Your task to perform on an android device: check battery use Image 0: 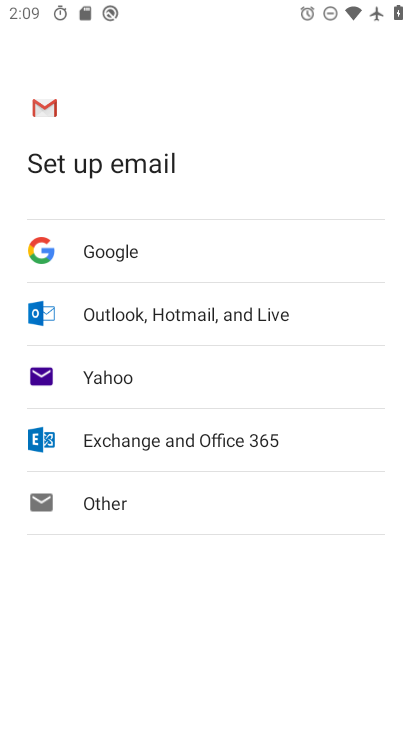
Step 0: press home button
Your task to perform on an android device: check battery use Image 1: 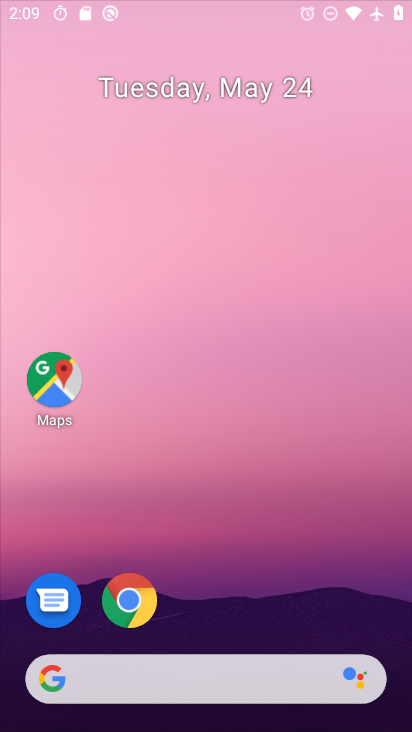
Step 1: drag from (257, 592) to (218, 150)
Your task to perform on an android device: check battery use Image 2: 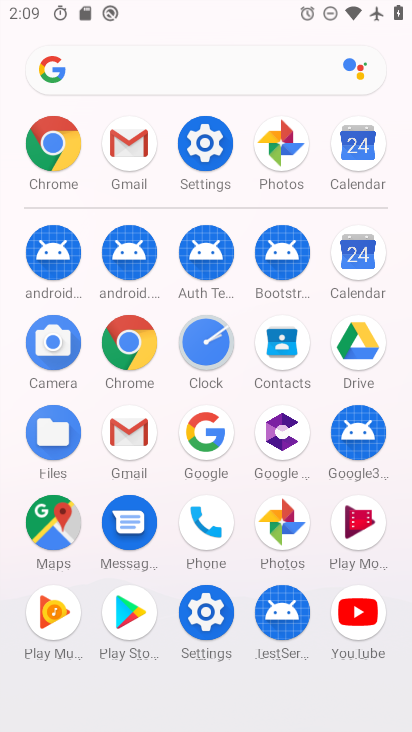
Step 2: click (207, 140)
Your task to perform on an android device: check battery use Image 3: 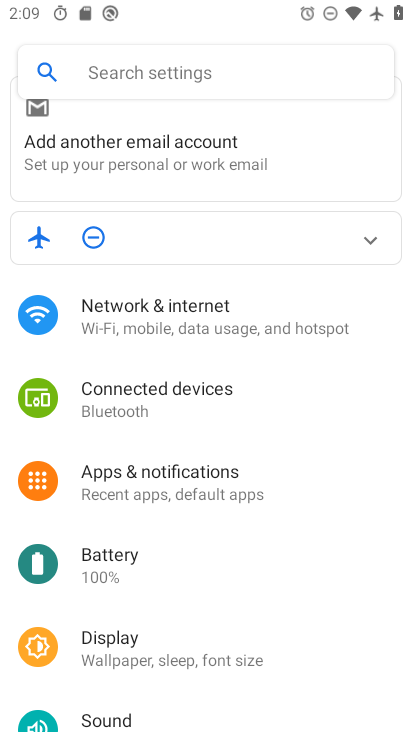
Step 3: drag from (185, 582) to (250, 225)
Your task to perform on an android device: check battery use Image 4: 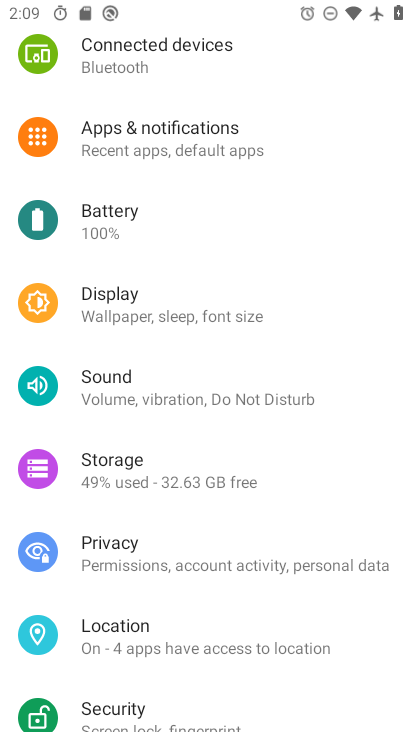
Step 4: drag from (176, 596) to (213, 570)
Your task to perform on an android device: check battery use Image 5: 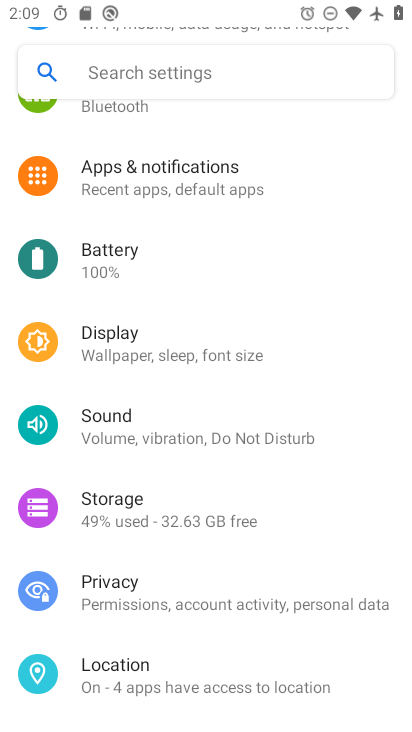
Step 5: click (119, 279)
Your task to perform on an android device: check battery use Image 6: 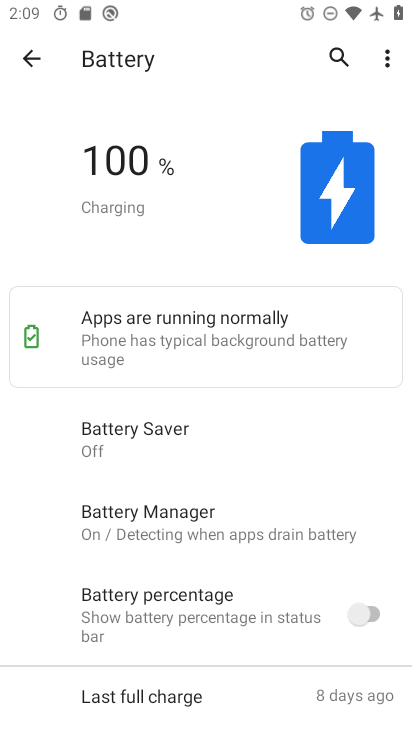
Step 6: click (389, 45)
Your task to perform on an android device: check battery use Image 7: 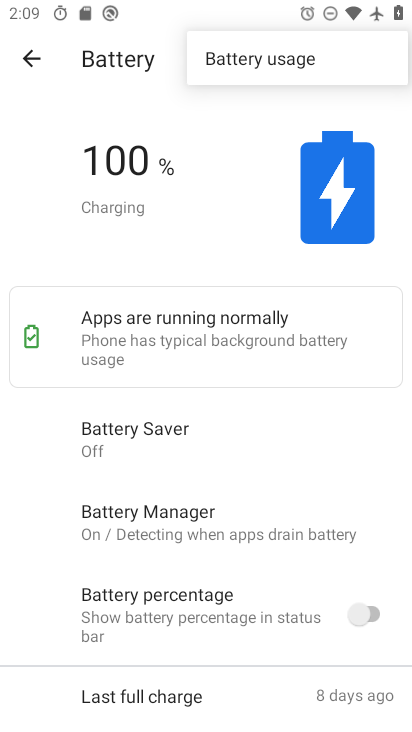
Step 7: click (291, 49)
Your task to perform on an android device: check battery use Image 8: 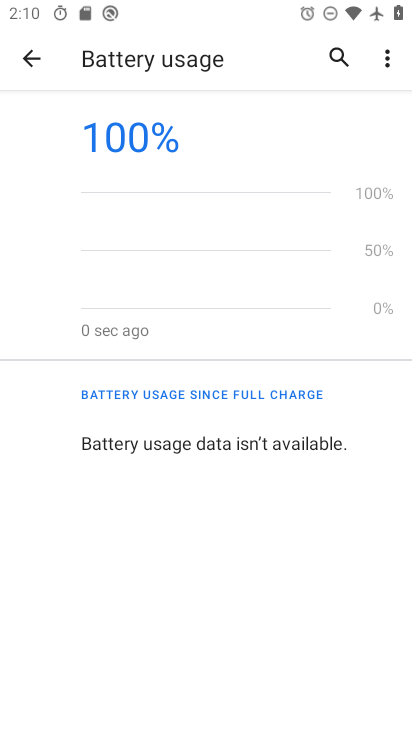
Step 8: task complete